Your task to perform on an android device: turn on location history Image 0: 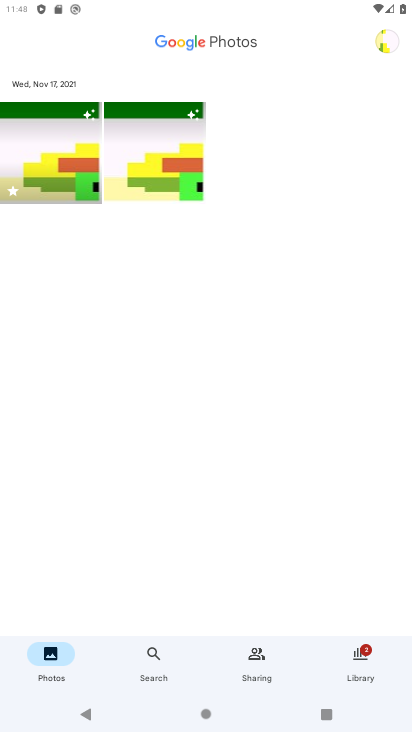
Step 0: press home button
Your task to perform on an android device: turn on location history Image 1: 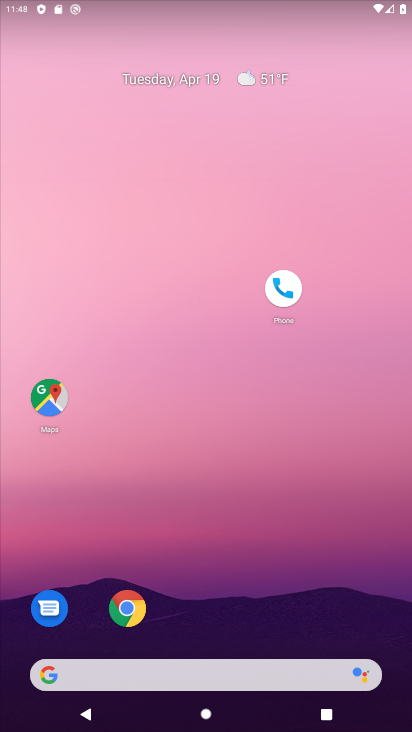
Step 1: drag from (193, 642) to (272, 271)
Your task to perform on an android device: turn on location history Image 2: 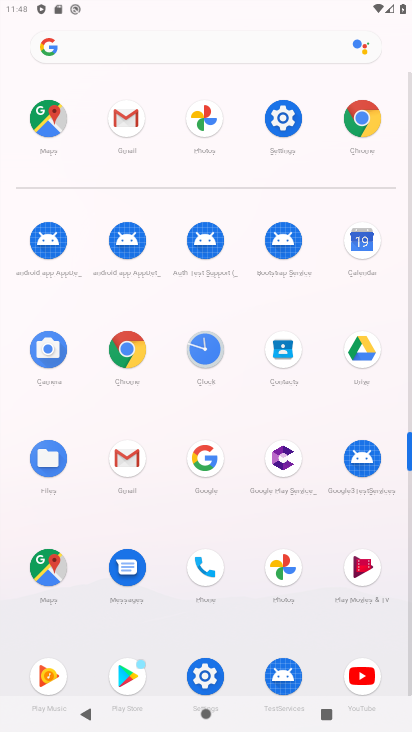
Step 2: click (285, 120)
Your task to perform on an android device: turn on location history Image 3: 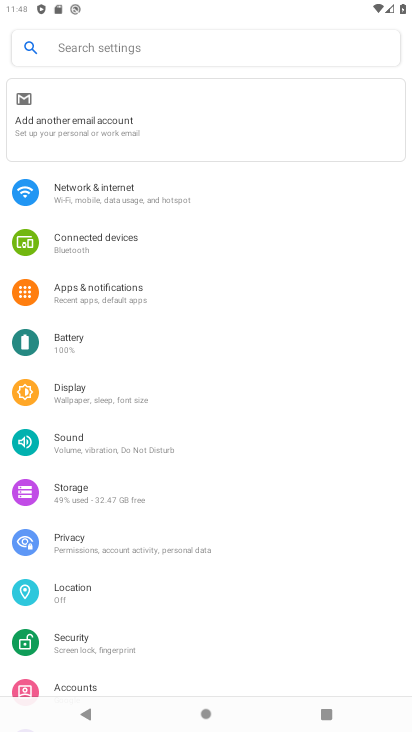
Step 3: drag from (157, 592) to (242, 274)
Your task to perform on an android device: turn on location history Image 4: 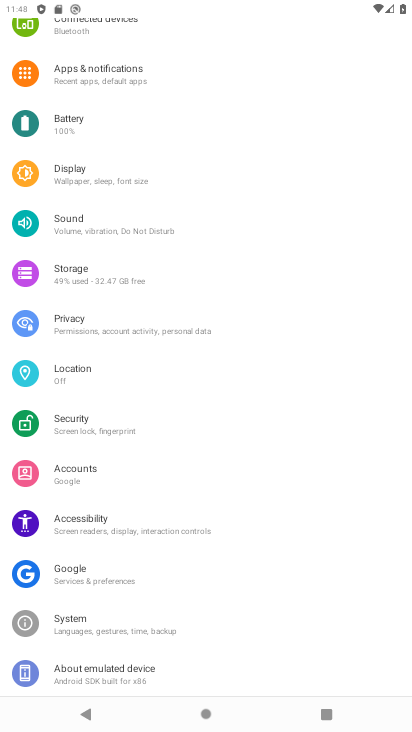
Step 4: click (75, 376)
Your task to perform on an android device: turn on location history Image 5: 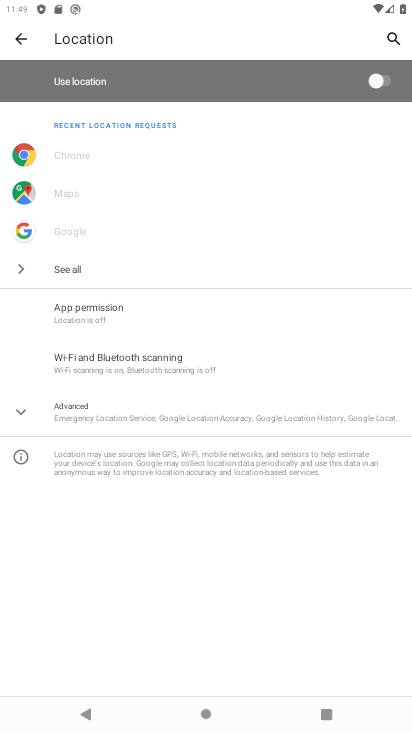
Step 5: click (379, 75)
Your task to perform on an android device: turn on location history Image 6: 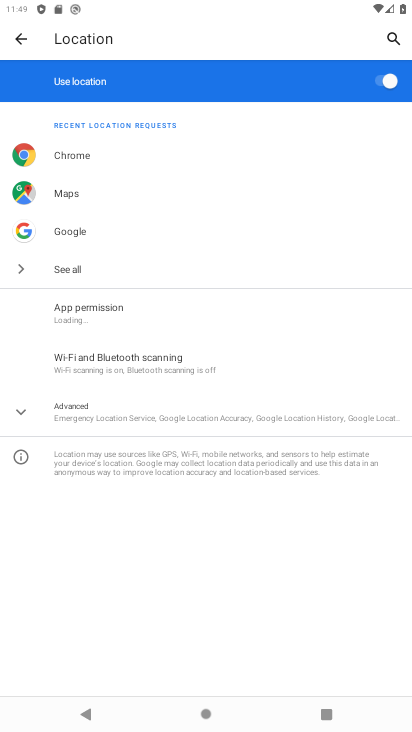
Step 6: task complete